Your task to perform on an android device: turn on javascript in the chrome app Image 0: 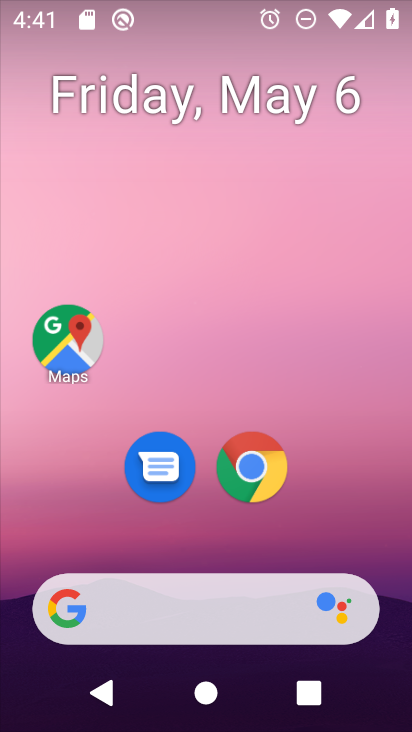
Step 0: click (269, 474)
Your task to perform on an android device: turn on javascript in the chrome app Image 1: 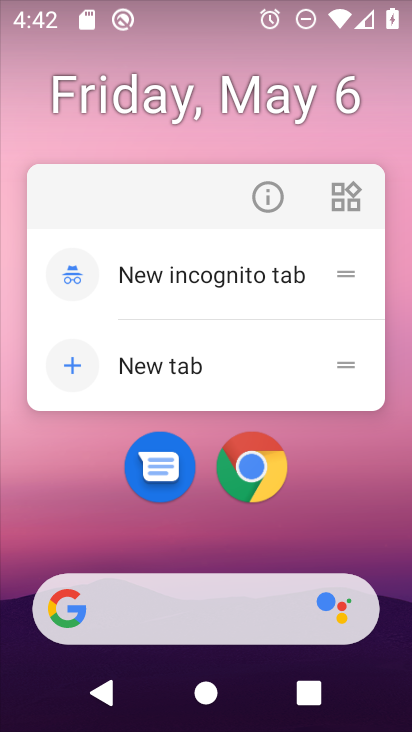
Step 1: click (247, 492)
Your task to perform on an android device: turn on javascript in the chrome app Image 2: 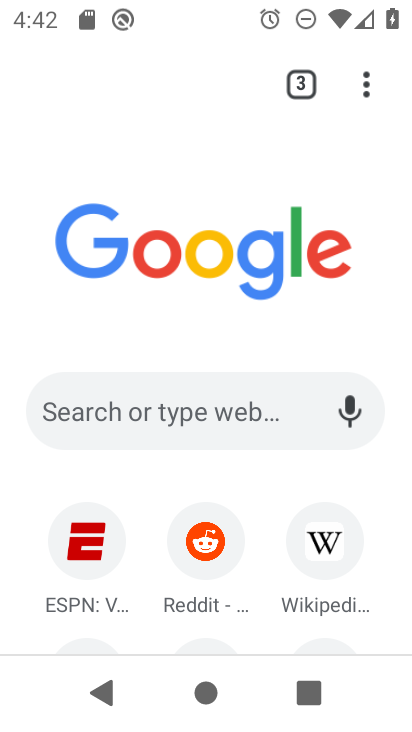
Step 2: click (355, 77)
Your task to perform on an android device: turn on javascript in the chrome app Image 3: 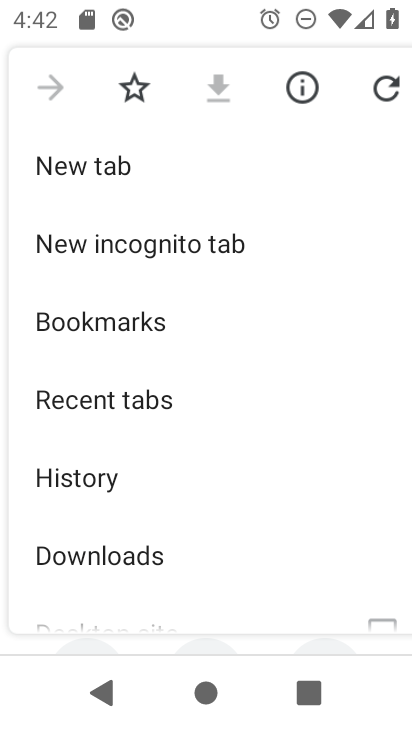
Step 3: drag from (148, 524) to (141, 150)
Your task to perform on an android device: turn on javascript in the chrome app Image 4: 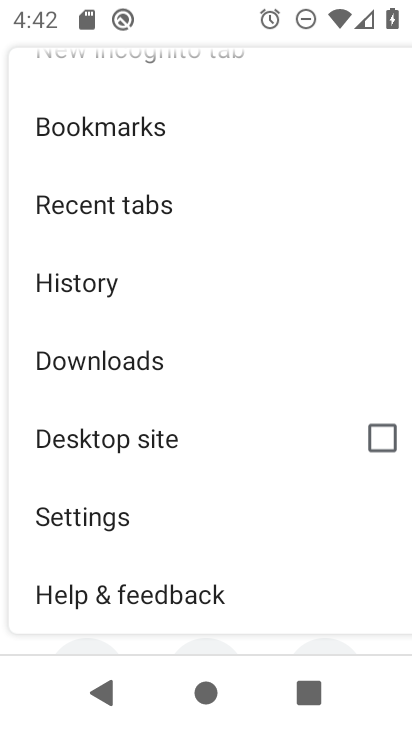
Step 4: click (162, 519)
Your task to perform on an android device: turn on javascript in the chrome app Image 5: 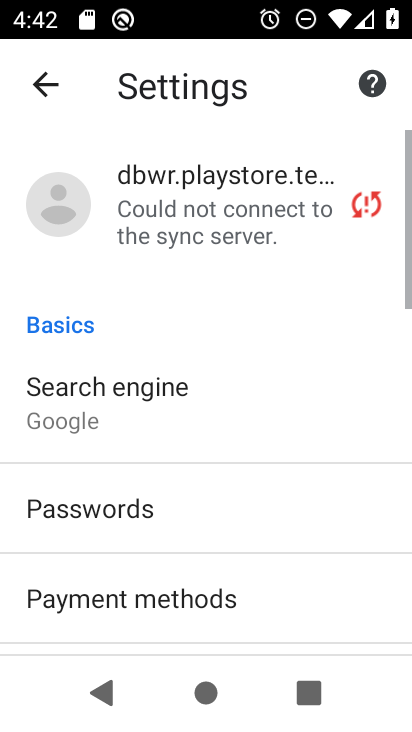
Step 5: drag from (158, 568) to (170, 264)
Your task to perform on an android device: turn on javascript in the chrome app Image 6: 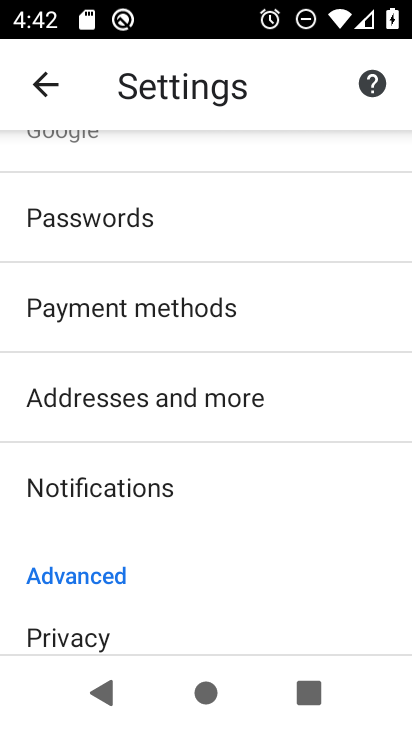
Step 6: drag from (160, 548) to (167, 333)
Your task to perform on an android device: turn on javascript in the chrome app Image 7: 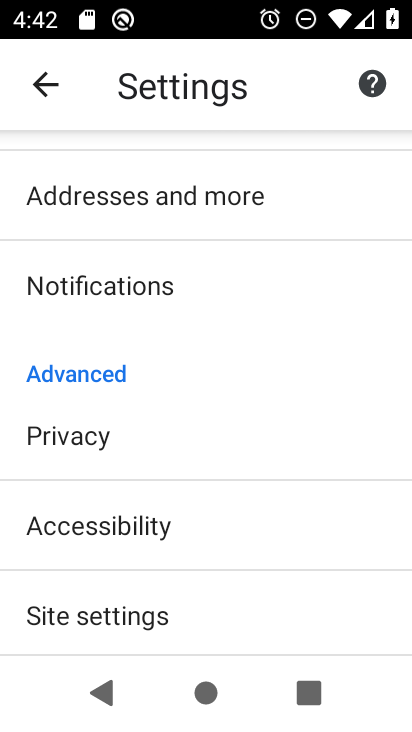
Step 7: drag from (183, 609) to (164, 411)
Your task to perform on an android device: turn on javascript in the chrome app Image 8: 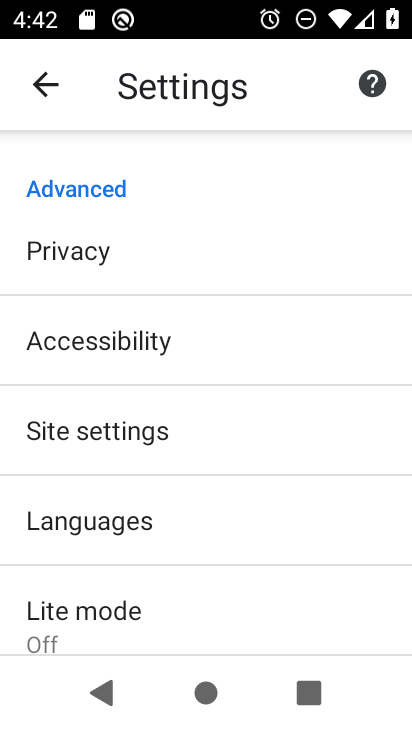
Step 8: click (66, 426)
Your task to perform on an android device: turn on javascript in the chrome app Image 9: 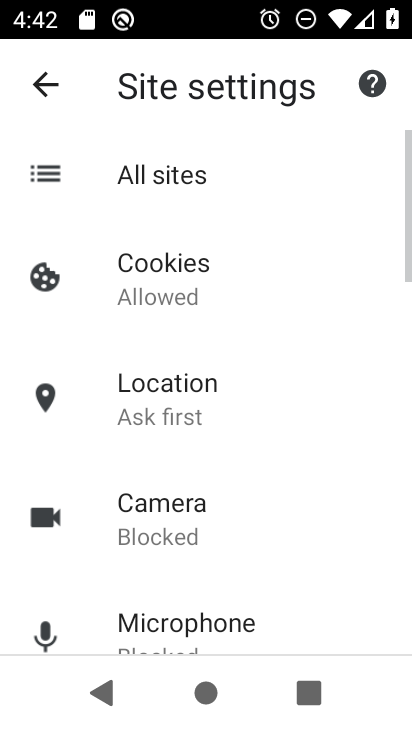
Step 9: drag from (232, 590) to (247, 314)
Your task to perform on an android device: turn on javascript in the chrome app Image 10: 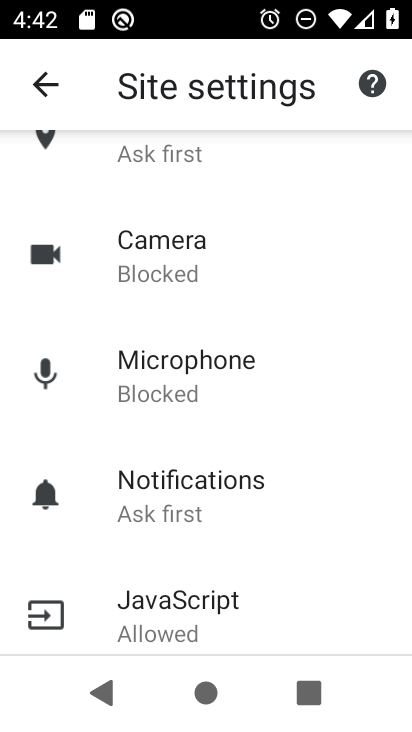
Step 10: drag from (266, 529) to (235, 283)
Your task to perform on an android device: turn on javascript in the chrome app Image 11: 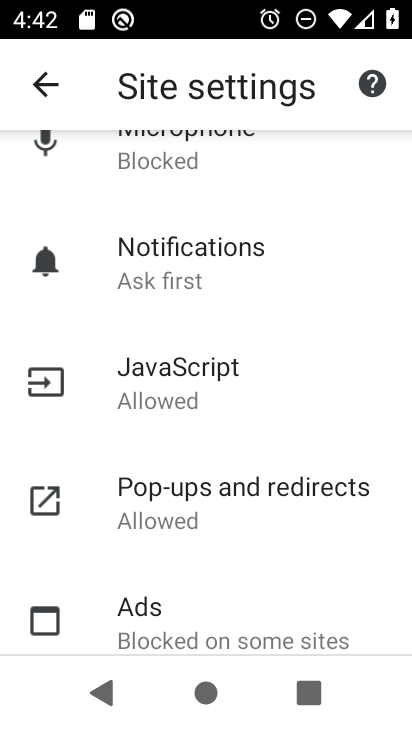
Step 11: click (146, 387)
Your task to perform on an android device: turn on javascript in the chrome app Image 12: 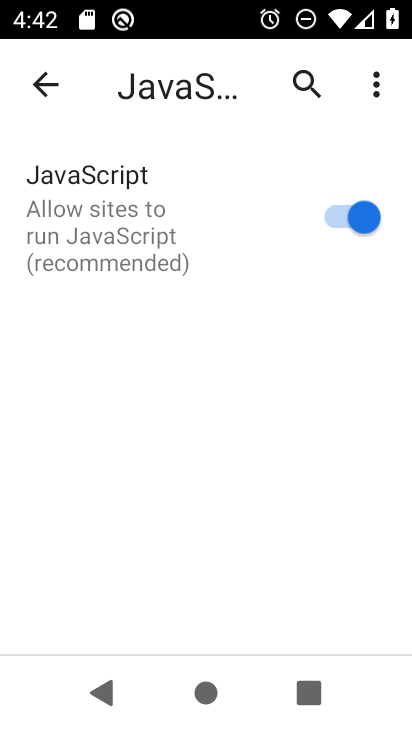
Step 12: task complete